Your task to perform on an android device: Open network settings Image 0: 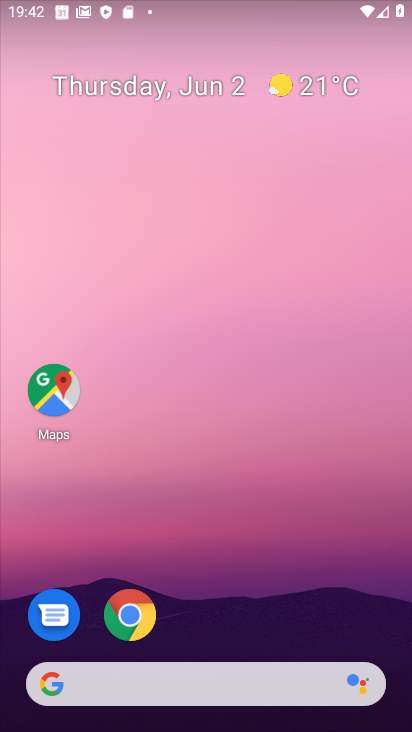
Step 0: drag from (220, 610) to (159, 117)
Your task to perform on an android device: Open network settings Image 1: 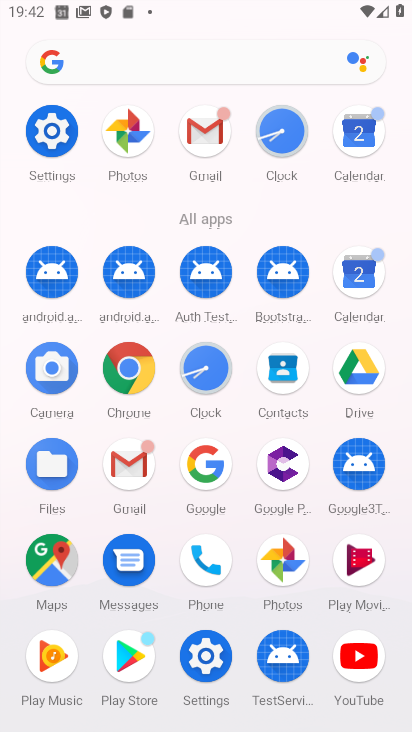
Step 1: click (211, 696)
Your task to perform on an android device: Open network settings Image 2: 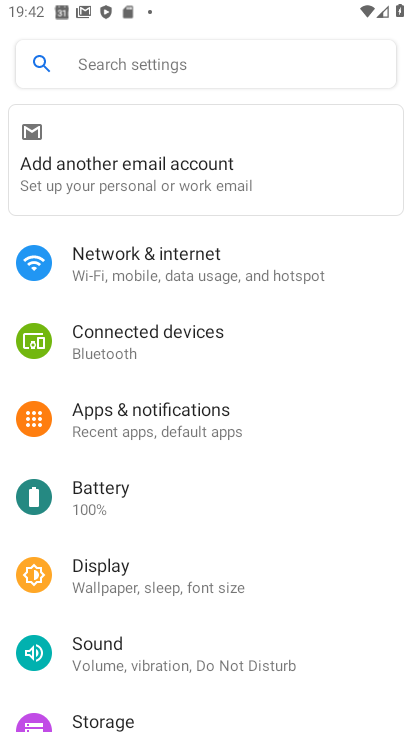
Step 2: click (153, 169)
Your task to perform on an android device: Open network settings Image 3: 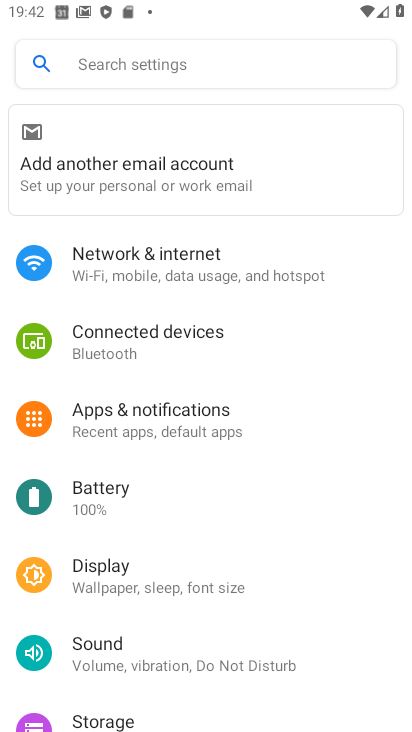
Step 3: click (146, 247)
Your task to perform on an android device: Open network settings Image 4: 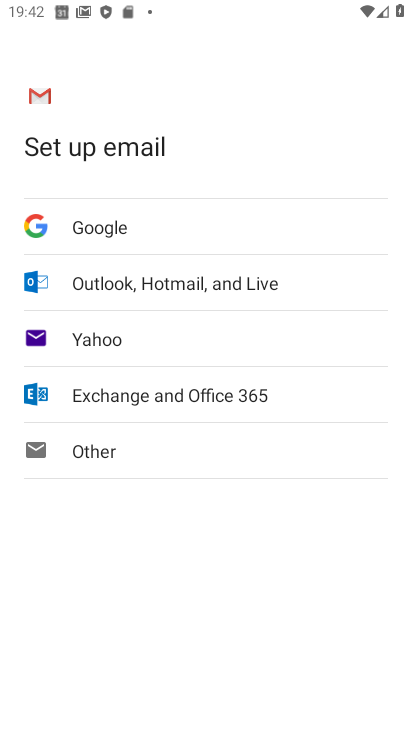
Step 4: task complete